Your task to perform on an android device: change text size in settings app Image 0: 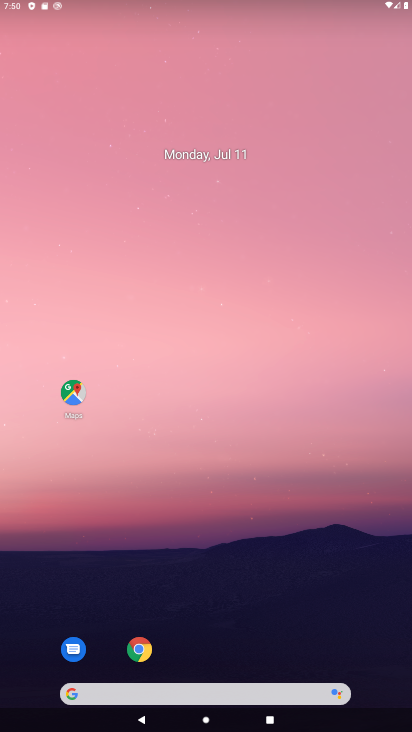
Step 0: drag from (259, 599) to (332, 168)
Your task to perform on an android device: change text size in settings app Image 1: 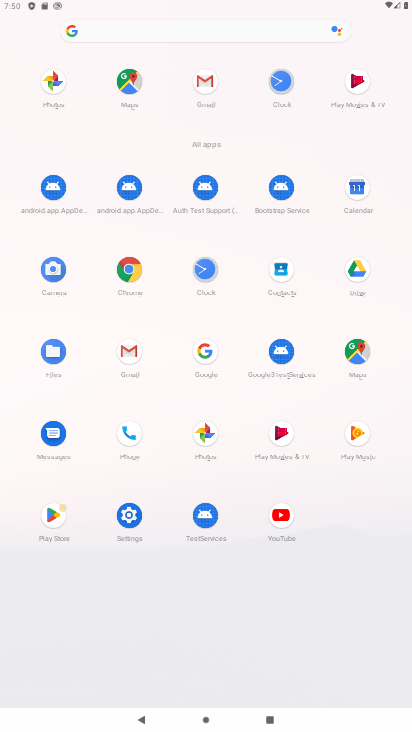
Step 1: click (129, 522)
Your task to perform on an android device: change text size in settings app Image 2: 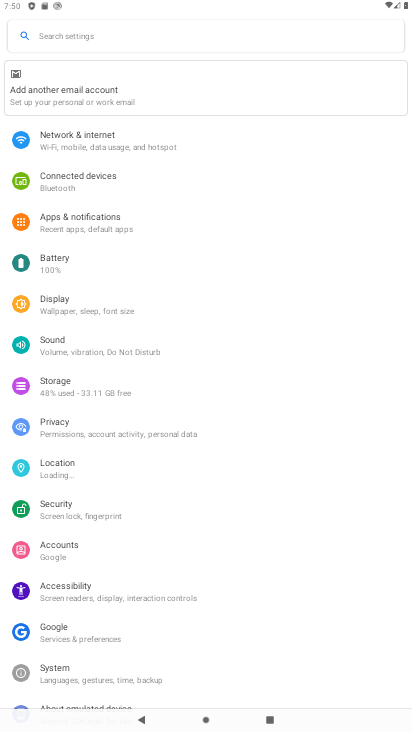
Step 2: click (77, 310)
Your task to perform on an android device: change text size in settings app Image 3: 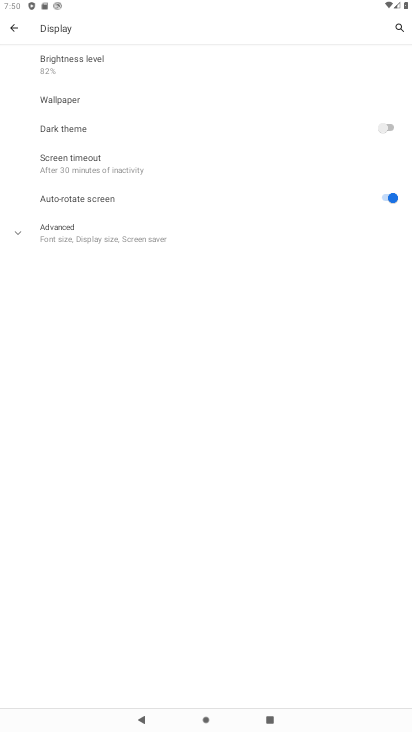
Step 3: click (103, 236)
Your task to perform on an android device: change text size in settings app Image 4: 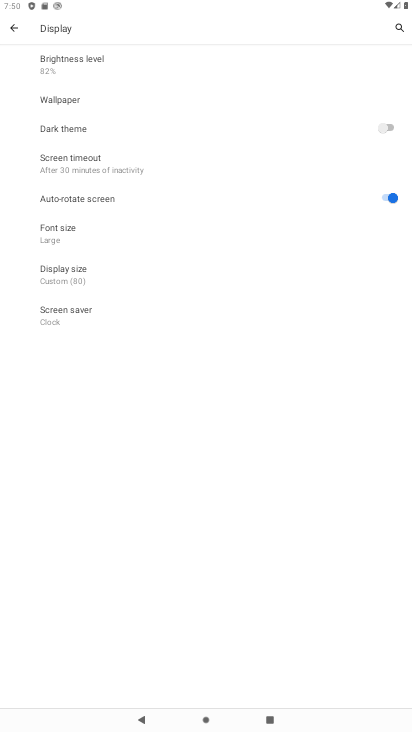
Step 4: click (76, 271)
Your task to perform on an android device: change text size in settings app Image 5: 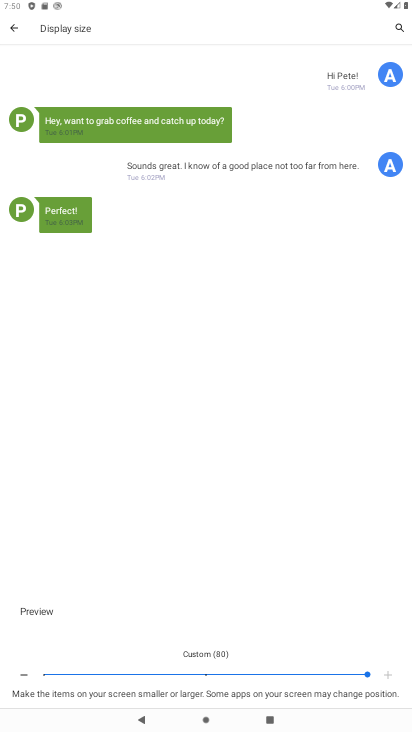
Step 5: drag from (366, 674) to (203, 673)
Your task to perform on an android device: change text size in settings app Image 6: 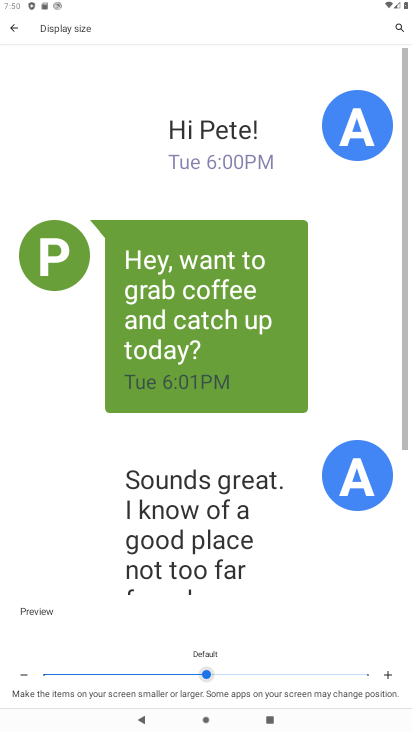
Step 6: drag from (204, 670) to (49, 677)
Your task to perform on an android device: change text size in settings app Image 7: 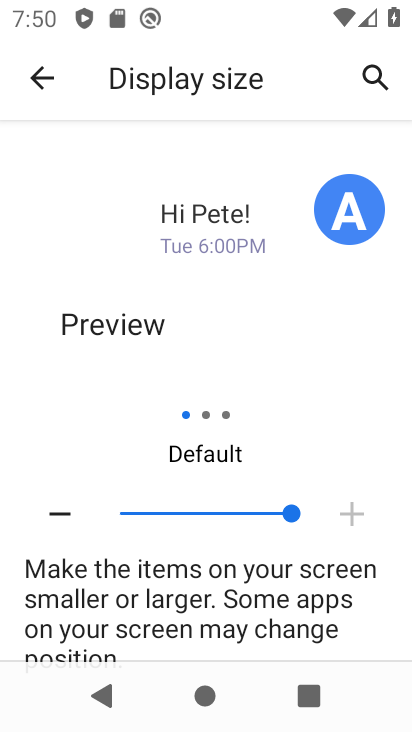
Step 7: drag from (297, 516) to (141, 510)
Your task to perform on an android device: change text size in settings app Image 8: 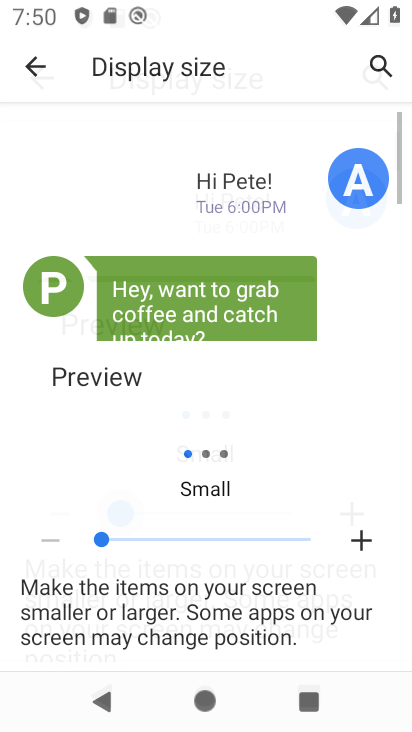
Step 8: drag from (125, 510) to (306, 546)
Your task to perform on an android device: change text size in settings app Image 9: 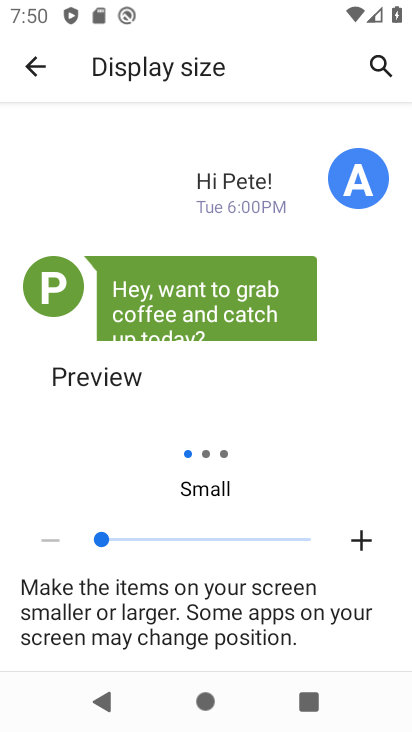
Step 9: drag from (103, 537) to (313, 538)
Your task to perform on an android device: change text size in settings app Image 10: 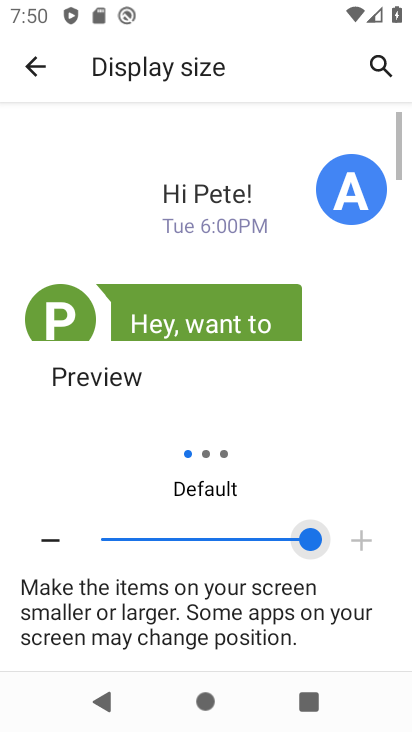
Step 10: drag from (353, 348) to (45, 330)
Your task to perform on an android device: change text size in settings app Image 11: 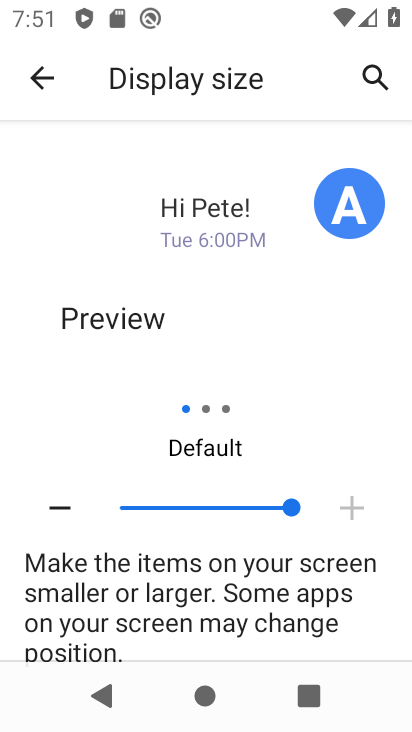
Step 11: drag from (200, 613) to (313, 89)
Your task to perform on an android device: change text size in settings app Image 12: 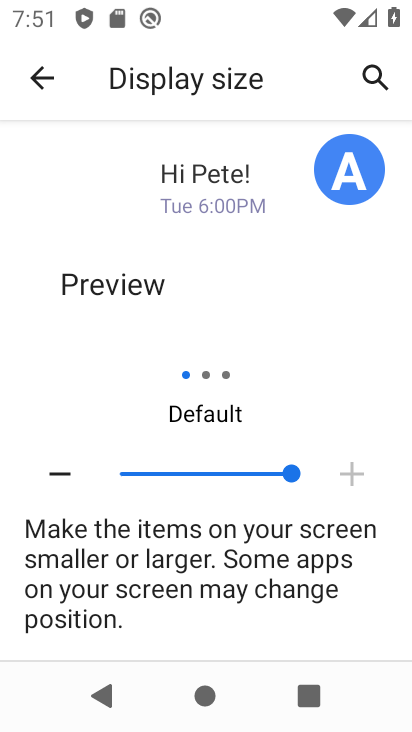
Step 12: click (30, 80)
Your task to perform on an android device: change text size in settings app Image 13: 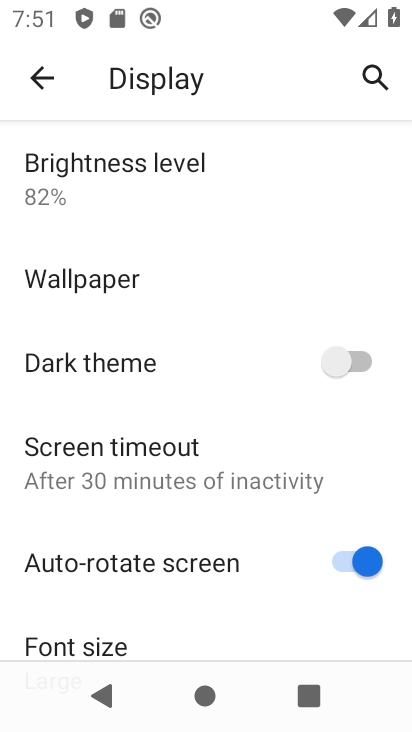
Step 13: drag from (119, 640) to (191, 306)
Your task to perform on an android device: change text size in settings app Image 14: 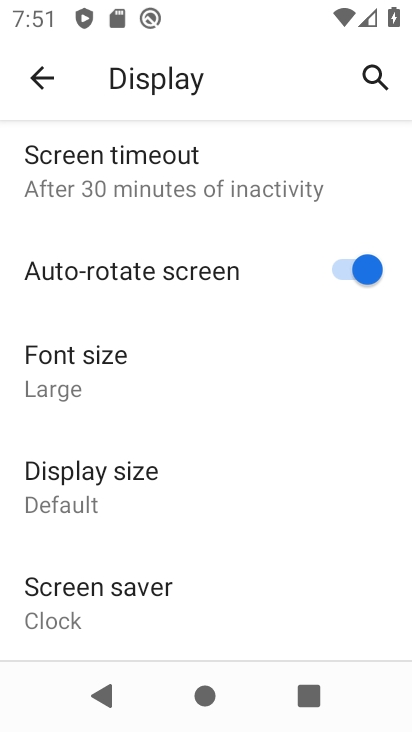
Step 14: click (125, 362)
Your task to perform on an android device: change text size in settings app Image 15: 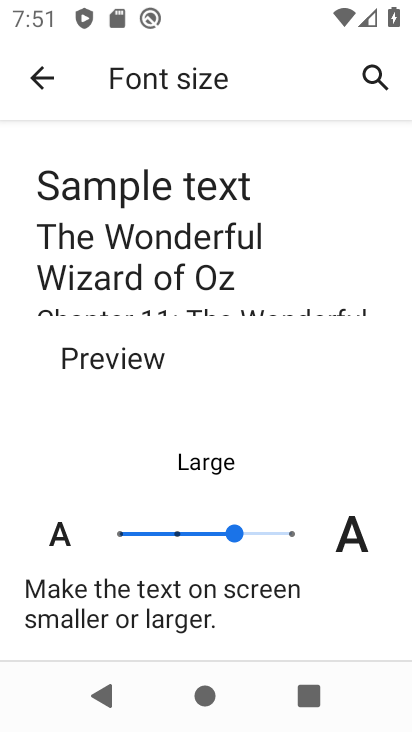
Step 15: task complete